Your task to perform on an android device: delete the emails in spam in the gmail app Image 0: 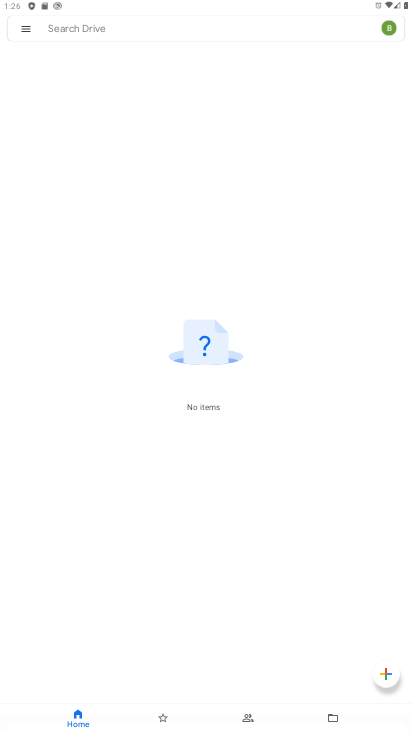
Step 0: press home button
Your task to perform on an android device: delete the emails in spam in the gmail app Image 1: 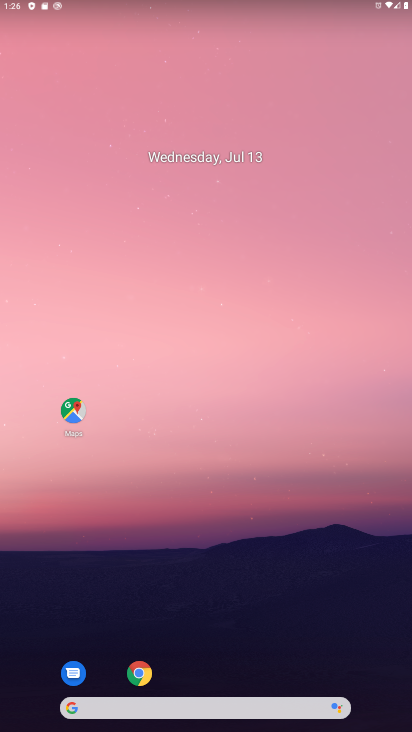
Step 1: drag from (206, 666) to (228, 204)
Your task to perform on an android device: delete the emails in spam in the gmail app Image 2: 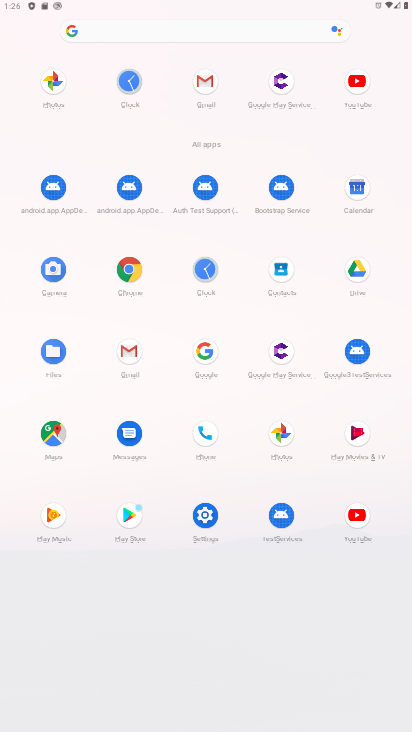
Step 2: click (207, 79)
Your task to perform on an android device: delete the emails in spam in the gmail app Image 3: 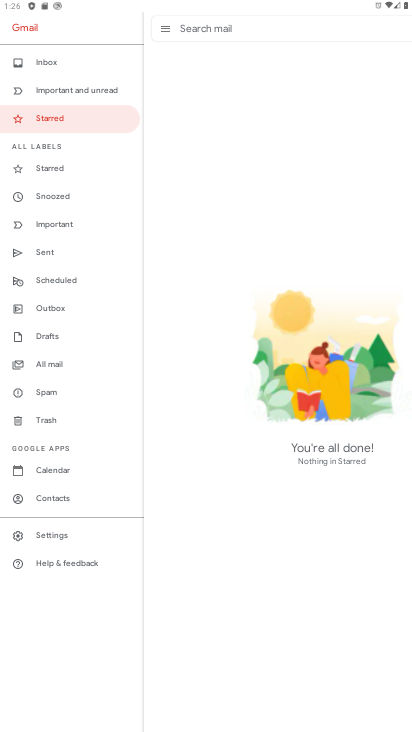
Step 3: click (42, 400)
Your task to perform on an android device: delete the emails in spam in the gmail app Image 4: 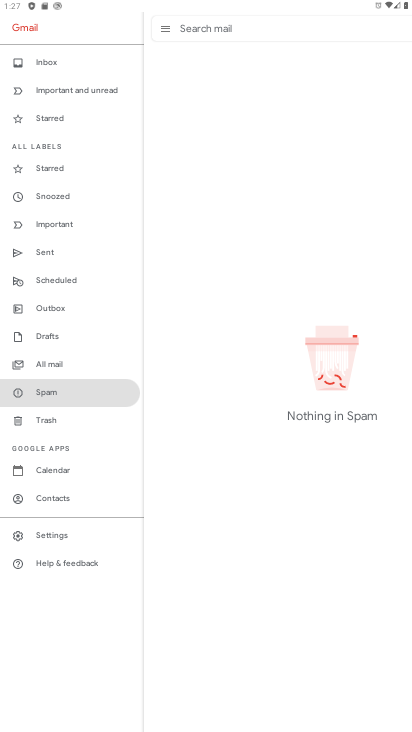
Step 4: task complete